Your task to perform on an android device: turn off airplane mode Image 0: 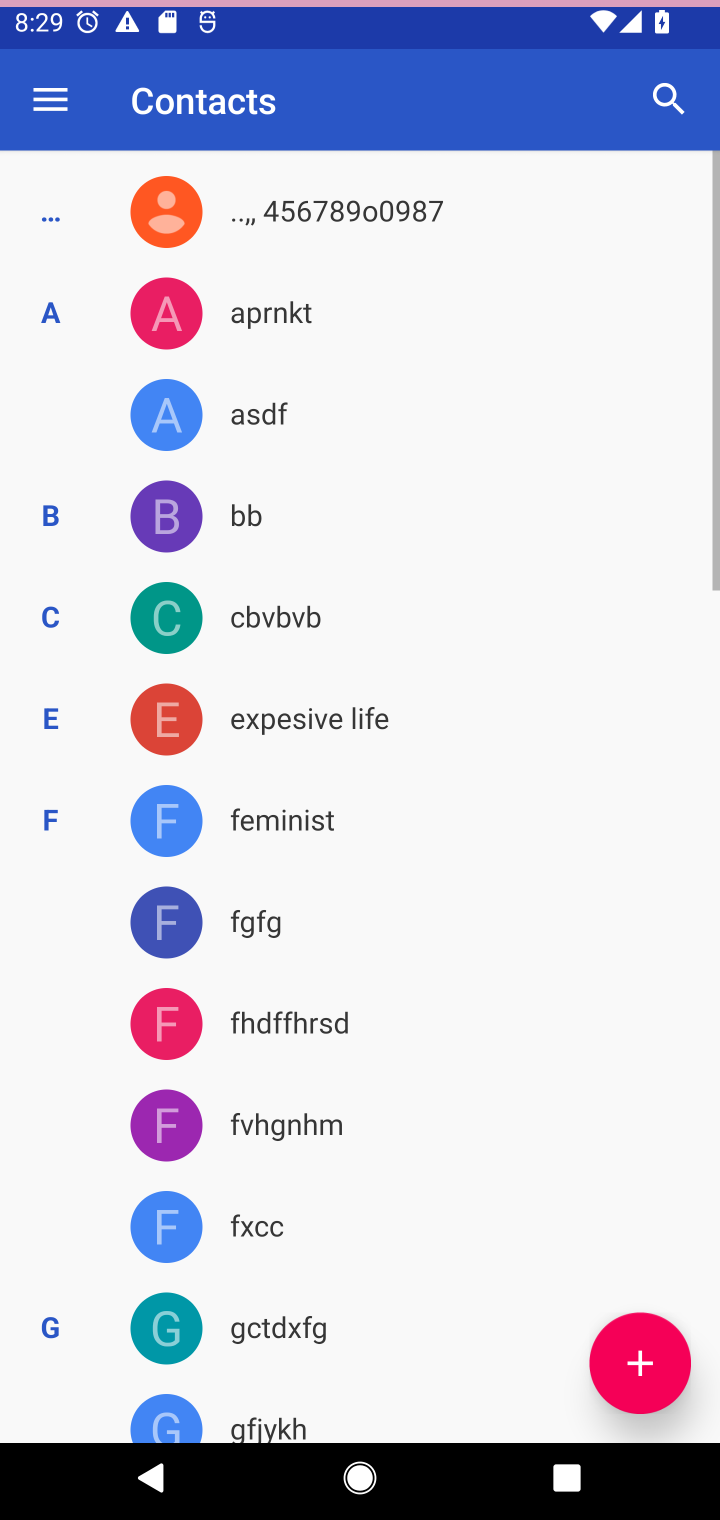
Step 0: click (662, 84)
Your task to perform on an android device: turn off airplane mode Image 1: 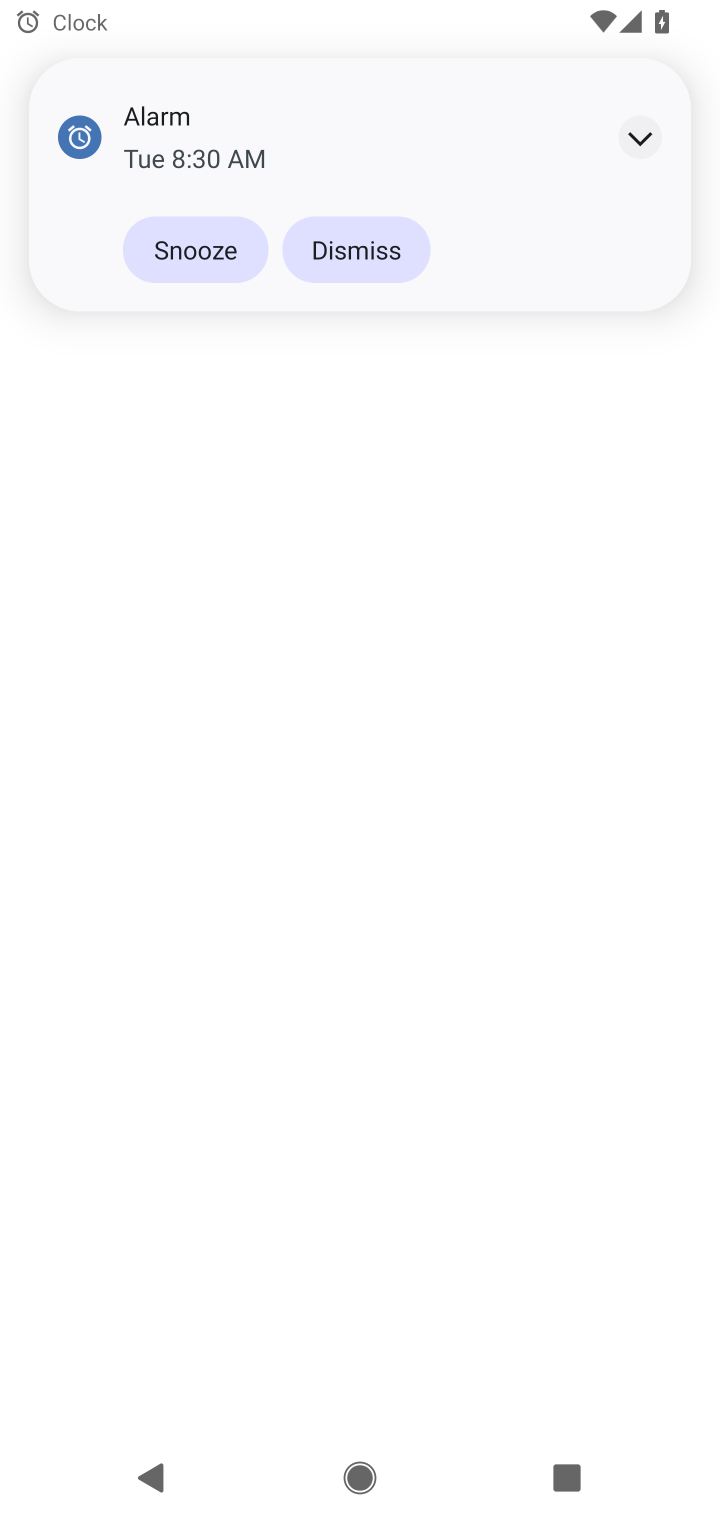
Step 1: press home button
Your task to perform on an android device: turn off airplane mode Image 2: 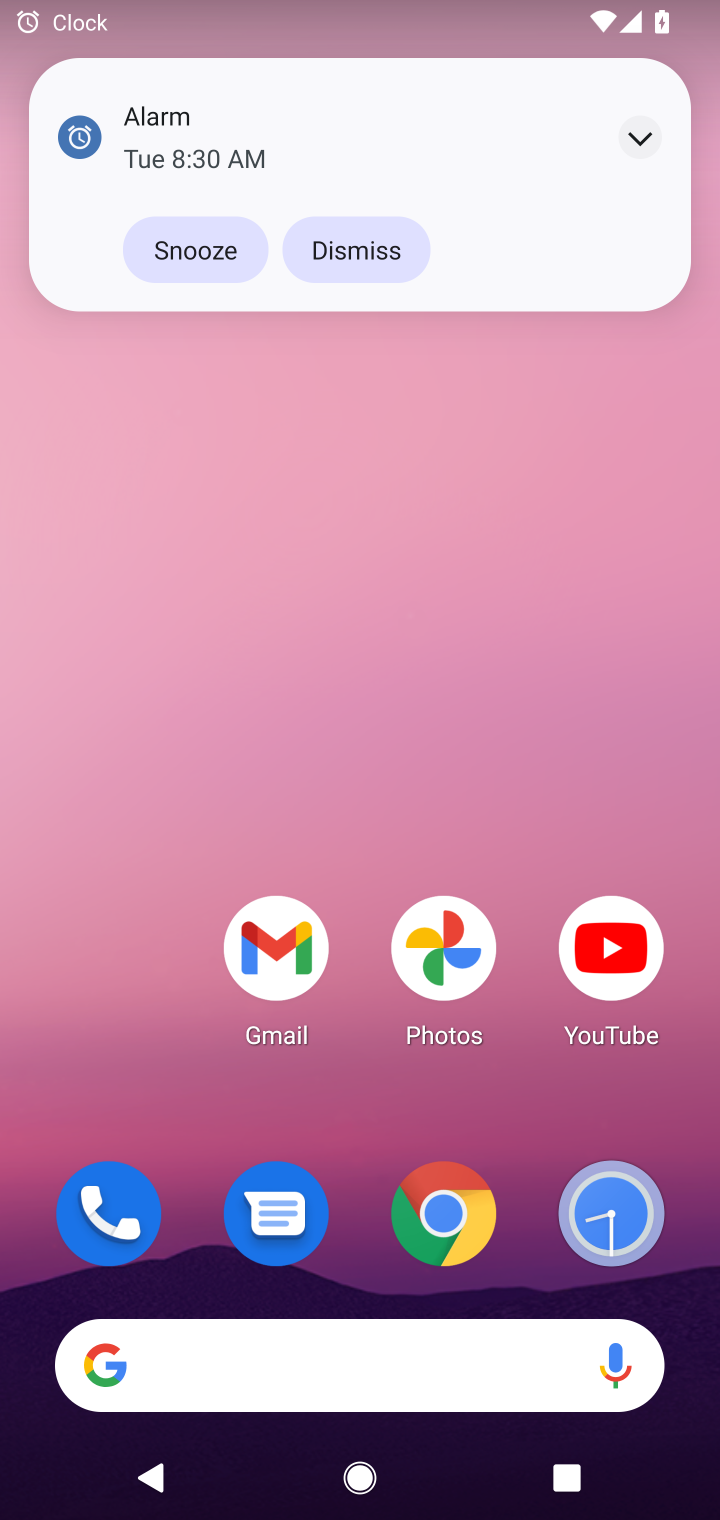
Step 2: drag from (411, 761) to (456, 236)
Your task to perform on an android device: turn off airplane mode Image 3: 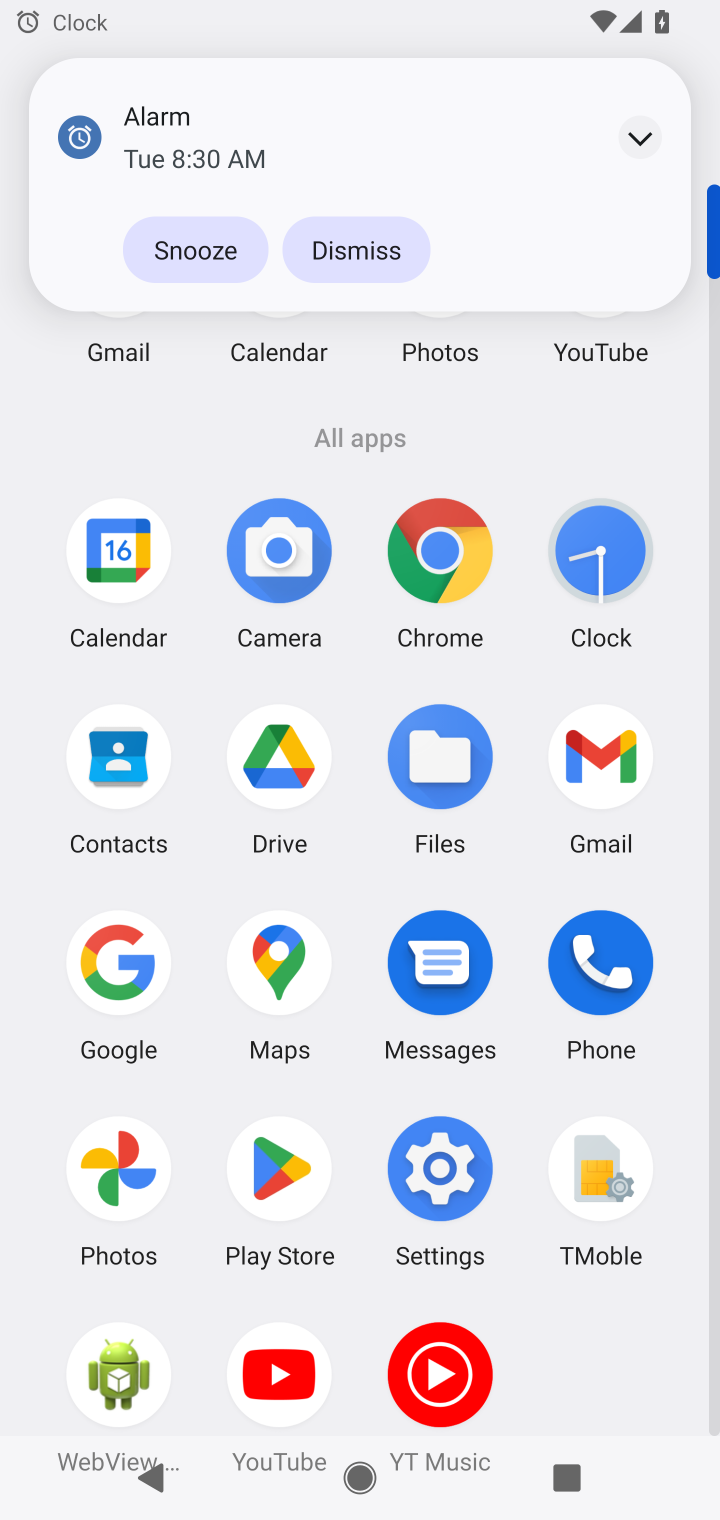
Step 3: click (428, 1172)
Your task to perform on an android device: turn off airplane mode Image 4: 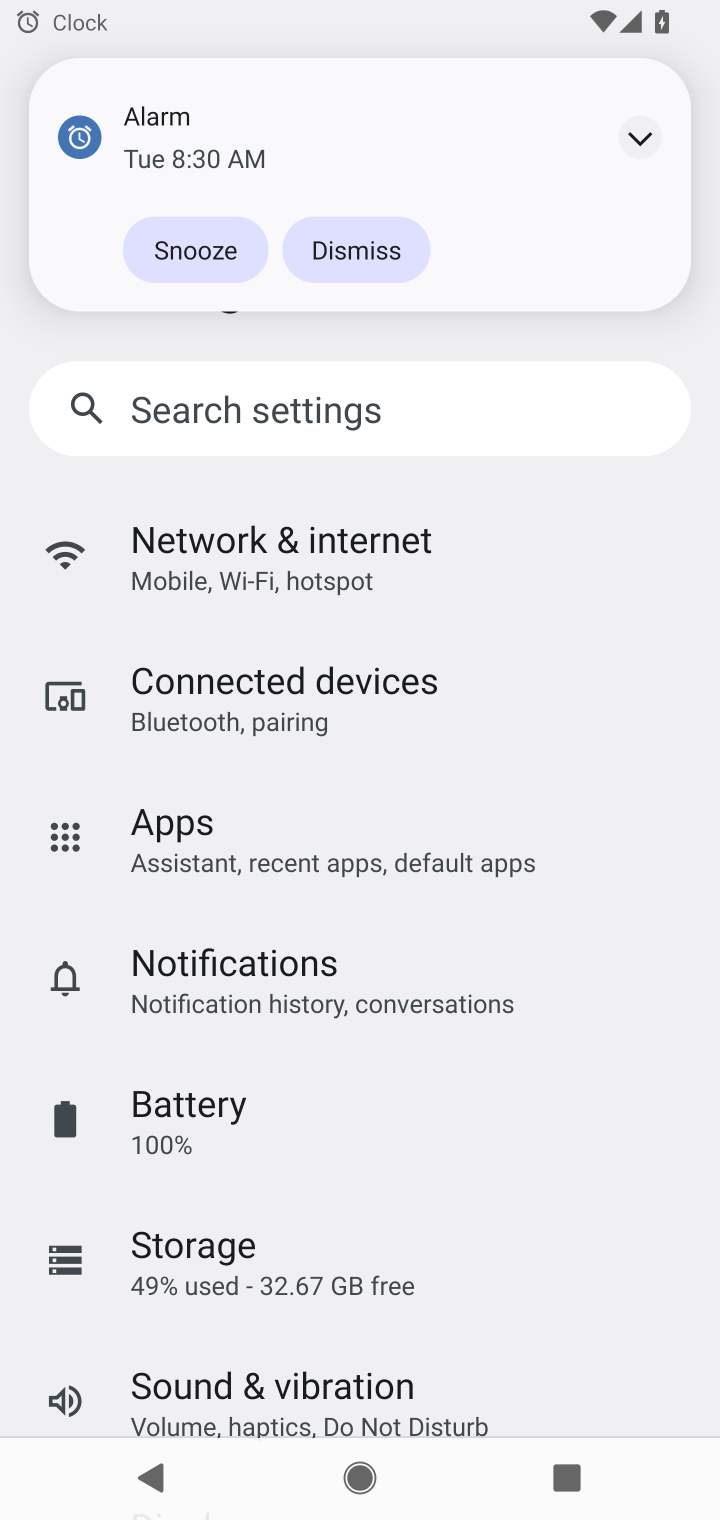
Step 4: click (276, 577)
Your task to perform on an android device: turn off airplane mode Image 5: 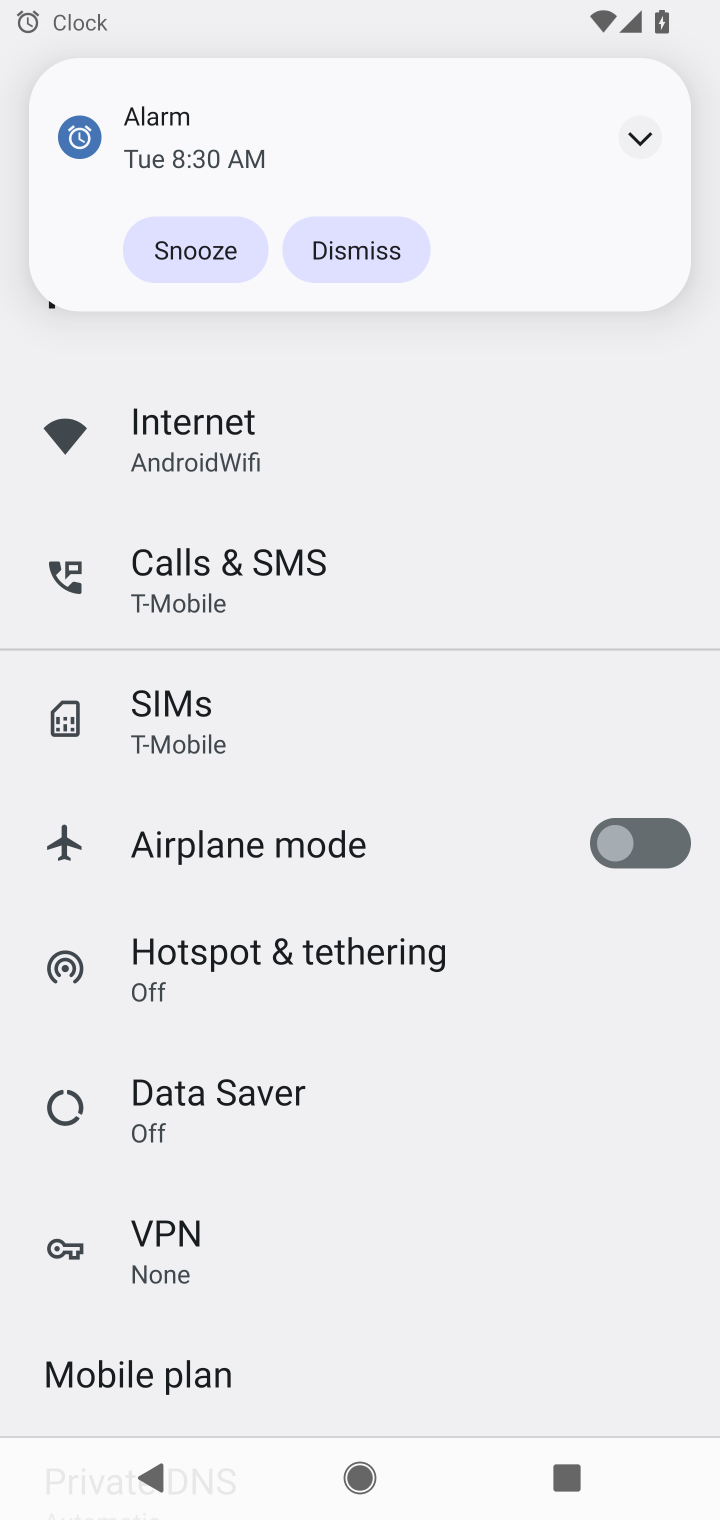
Step 5: click (690, 816)
Your task to perform on an android device: turn off airplane mode Image 6: 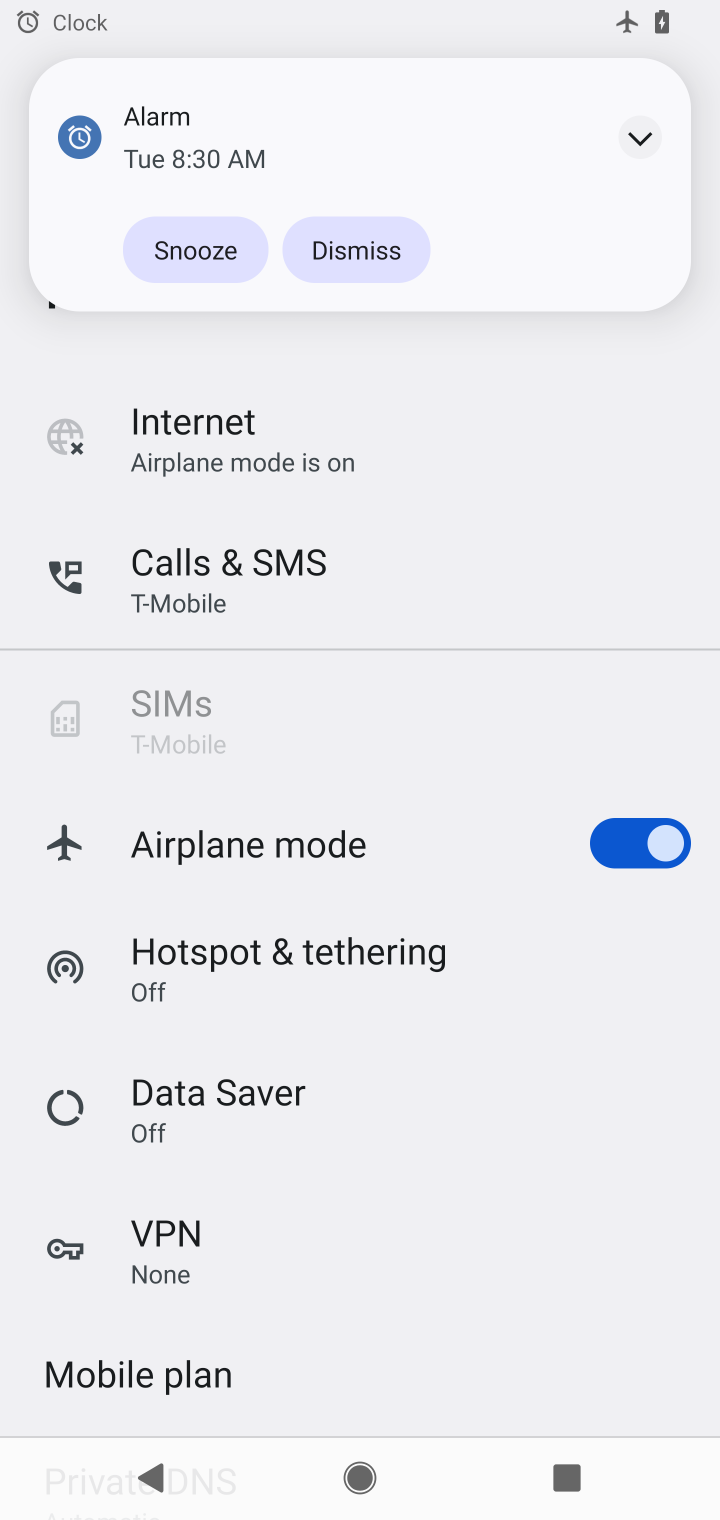
Step 6: task complete